Your task to perform on an android device: set an alarm Image 0: 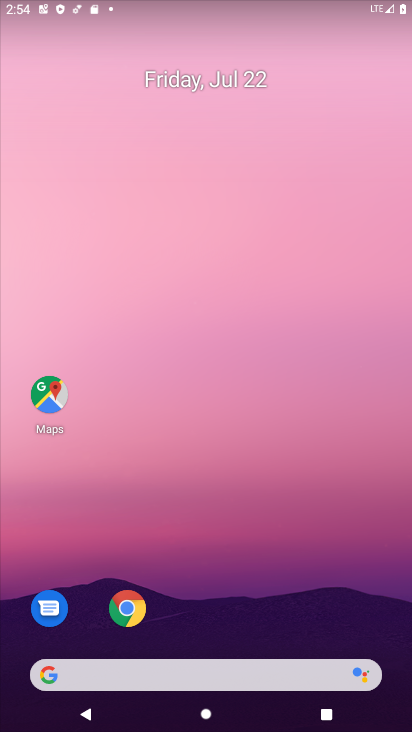
Step 0: drag from (347, 620) to (392, 141)
Your task to perform on an android device: set an alarm Image 1: 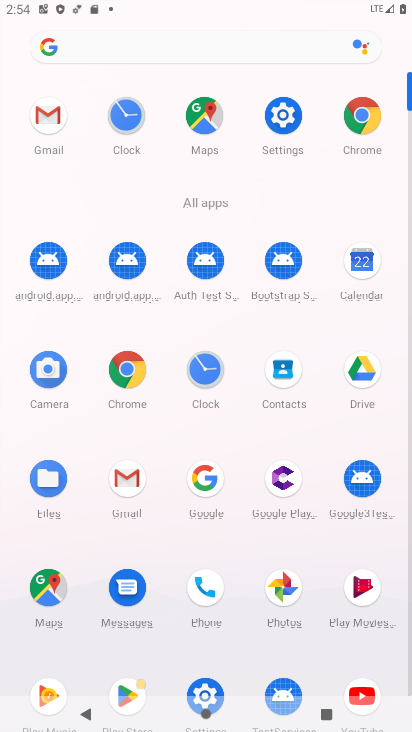
Step 1: click (211, 384)
Your task to perform on an android device: set an alarm Image 2: 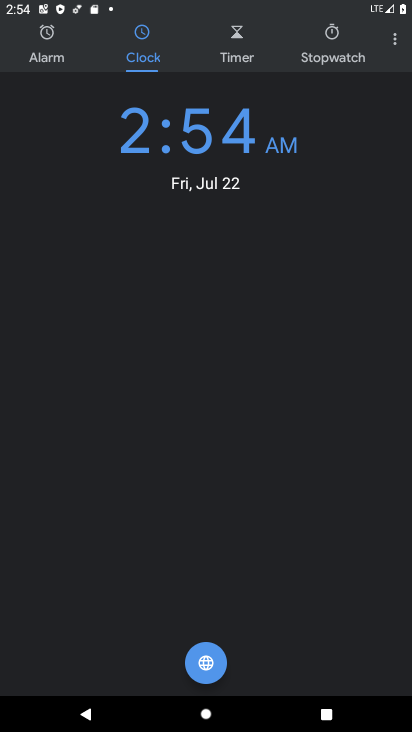
Step 2: click (54, 44)
Your task to perform on an android device: set an alarm Image 3: 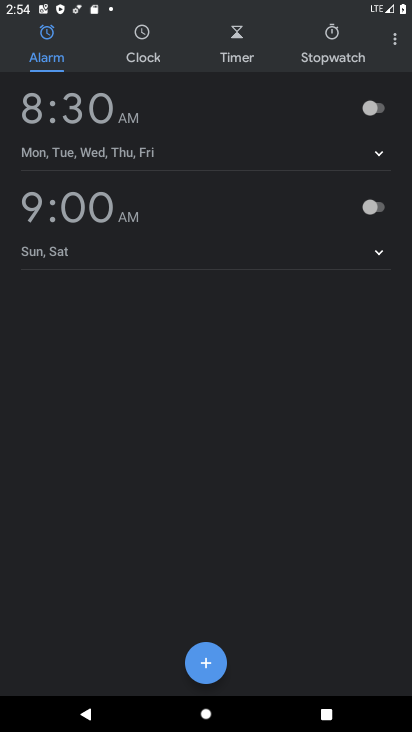
Step 3: click (368, 106)
Your task to perform on an android device: set an alarm Image 4: 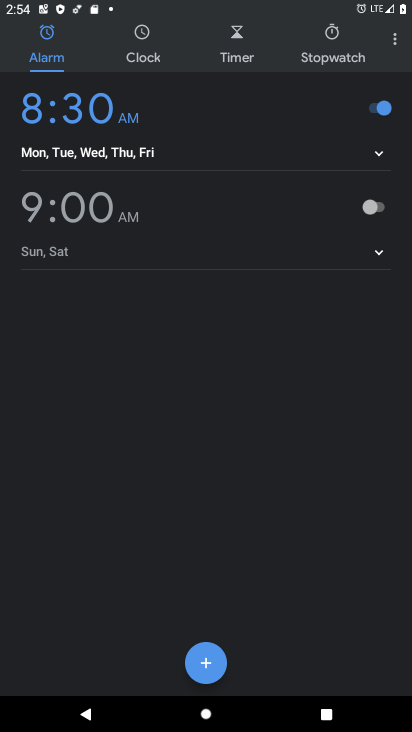
Step 4: task complete